Your task to perform on an android device: stop showing notifications on the lock screen Image 0: 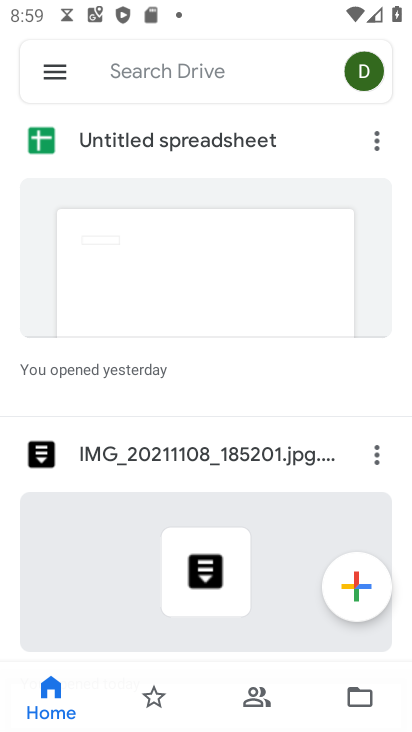
Step 0: press home button
Your task to perform on an android device: stop showing notifications on the lock screen Image 1: 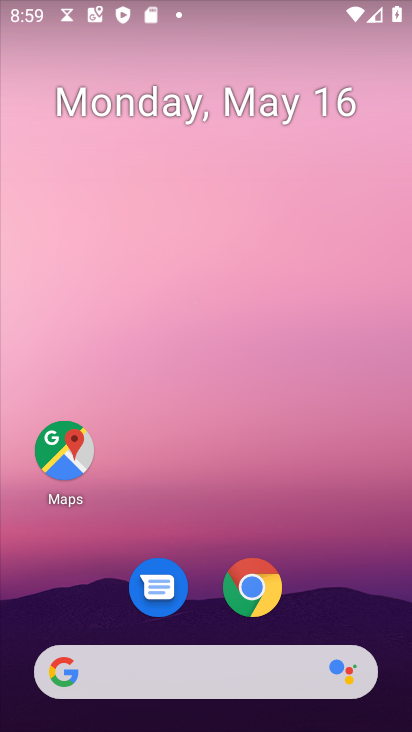
Step 1: drag from (321, 583) to (261, 98)
Your task to perform on an android device: stop showing notifications on the lock screen Image 2: 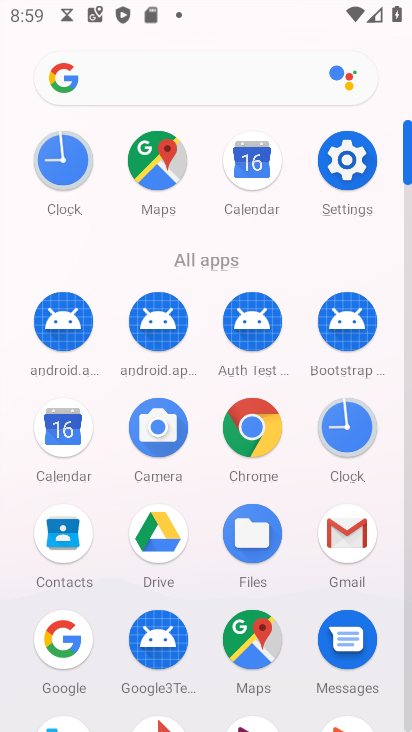
Step 2: click (343, 161)
Your task to perform on an android device: stop showing notifications on the lock screen Image 3: 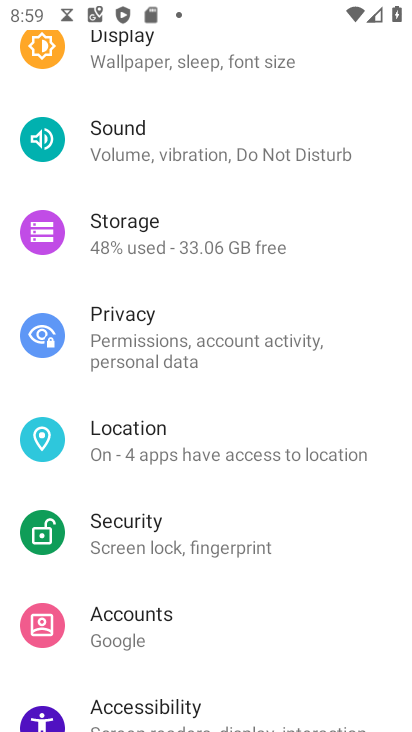
Step 3: drag from (264, 109) to (291, 626)
Your task to perform on an android device: stop showing notifications on the lock screen Image 4: 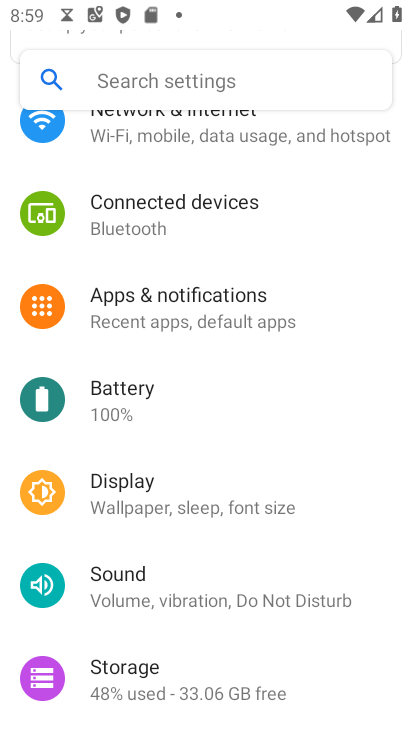
Step 4: click (250, 318)
Your task to perform on an android device: stop showing notifications on the lock screen Image 5: 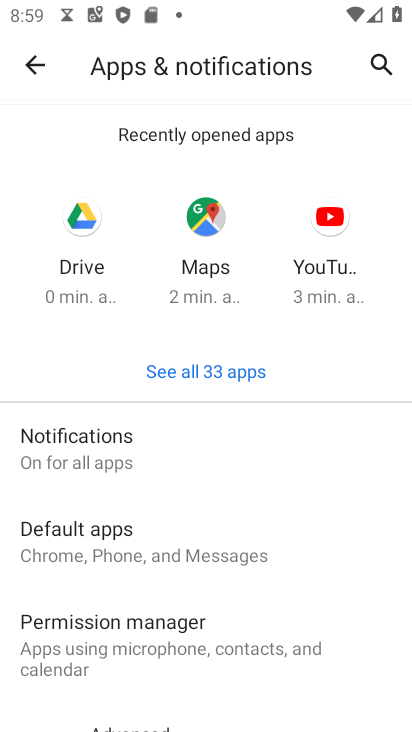
Step 5: click (261, 467)
Your task to perform on an android device: stop showing notifications on the lock screen Image 6: 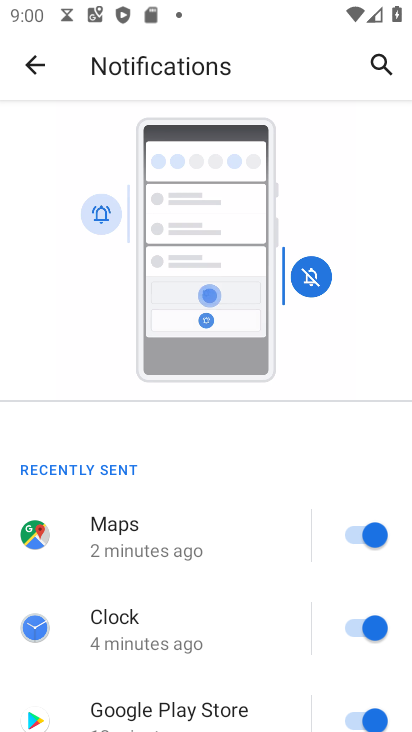
Step 6: drag from (275, 719) to (305, 288)
Your task to perform on an android device: stop showing notifications on the lock screen Image 7: 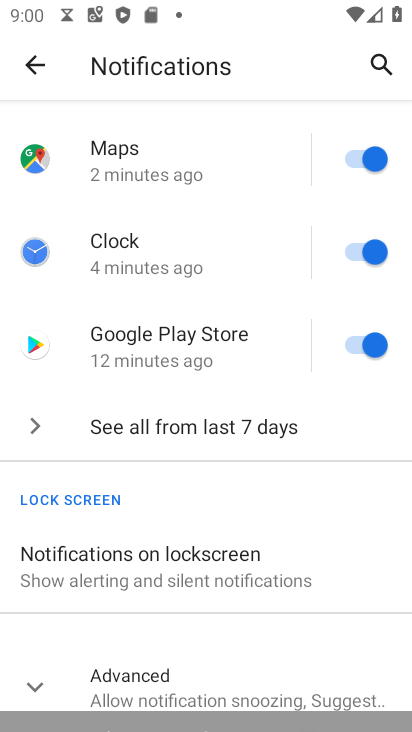
Step 7: click (286, 580)
Your task to perform on an android device: stop showing notifications on the lock screen Image 8: 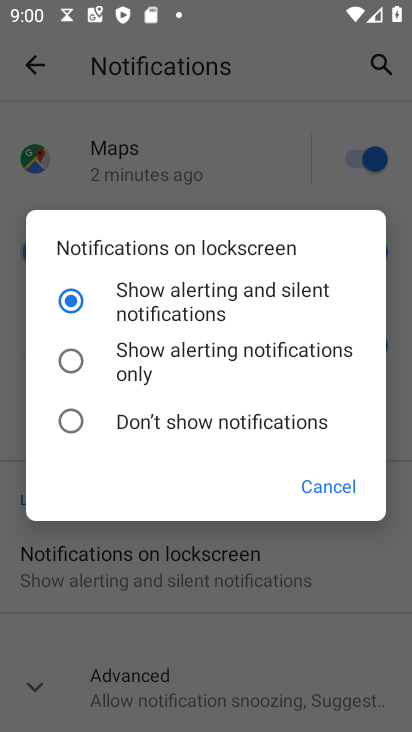
Step 8: click (254, 424)
Your task to perform on an android device: stop showing notifications on the lock screen Image 9: 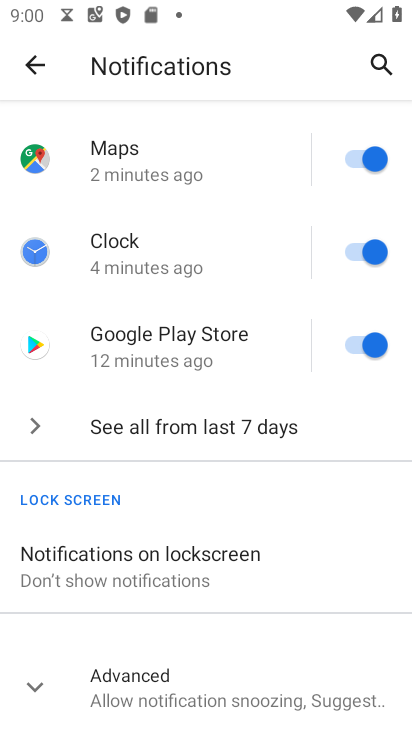
Step 9: task complete